Your task to perform on an android device: find snoozed emails in the gmail app Image 0: 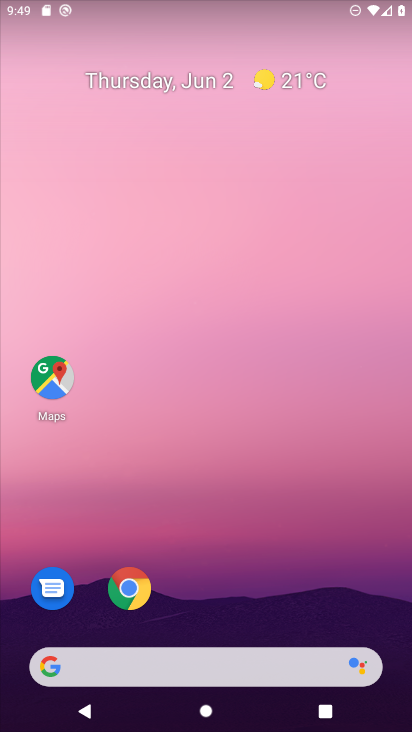
Step 0: drag from (216, 638) to (216, 135)
Your task to perform on an android device: find snoozed emails in the gmail app Image 1: 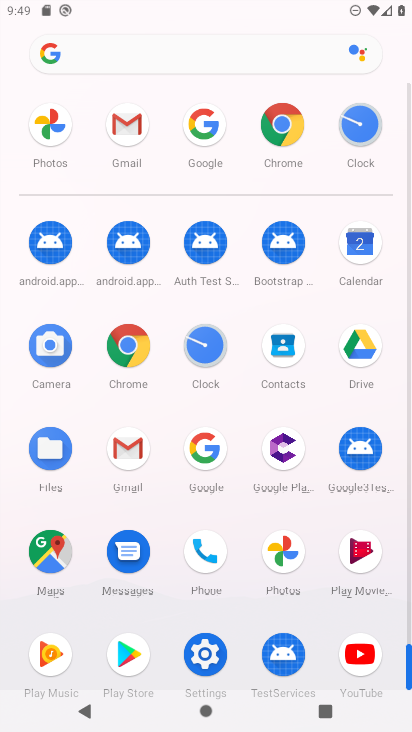
Step 1: click (129, 453)
Your task to perform on an android device: find snoozed emails in the gmail app Image 2: 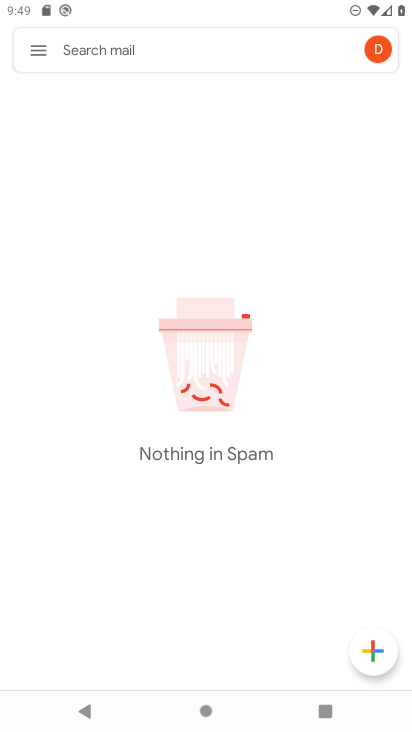
Step 2: click (37, 41)
Your task to perform on an android device: find snoozed emails in the gmail app Image 3: 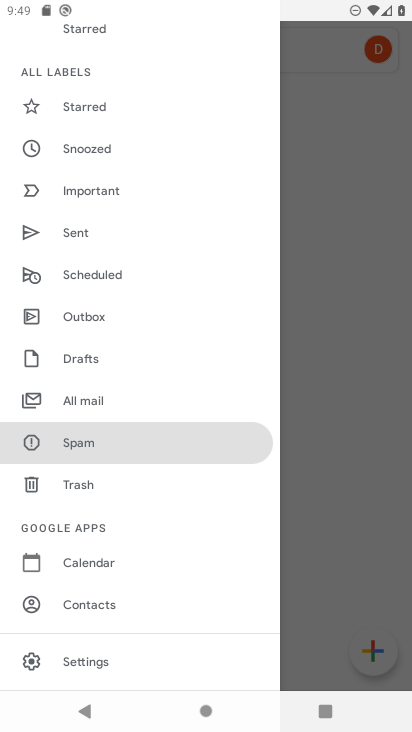
Step 3: click (111, 153)
Your task to perform on an android device: find snoozed emails in the gmail app Image 4: 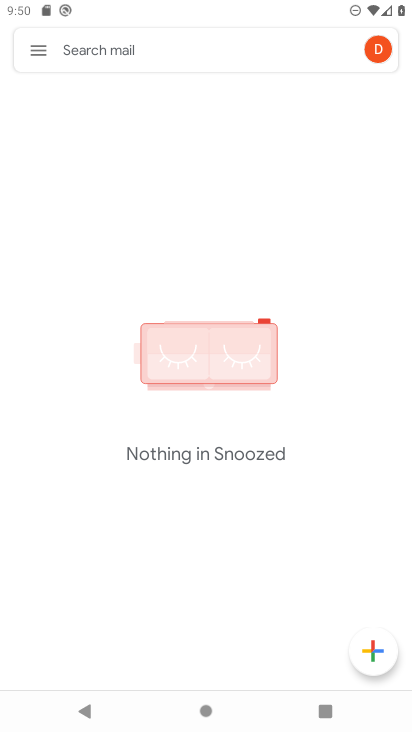
Step 4: task complete